Your task to perform on an android device: change the clock display to show seconds Image 0: 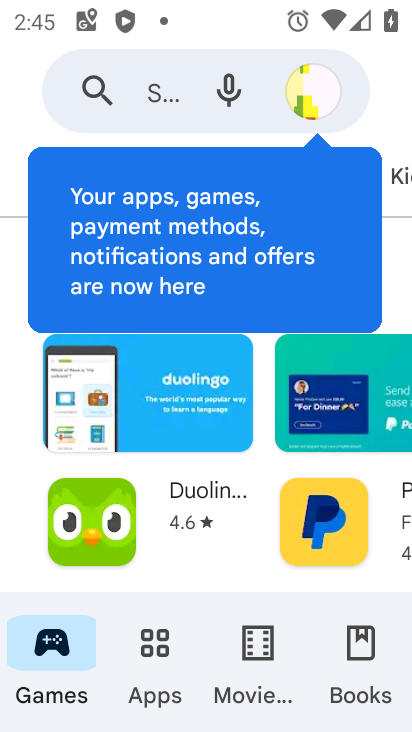
Step 0: press home button
Your task to perform on an android device: change the clock display to show seconds Image 1: 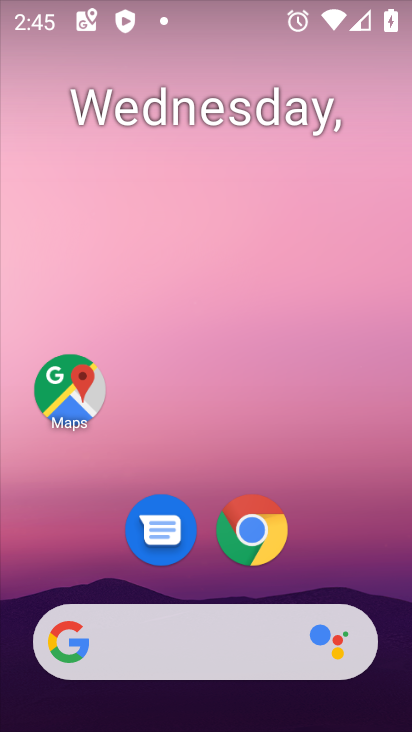
Step 1: drag from (191, 590) to (214, 330)
Your task to perform on an android device: change the clock display to show seconds Image 2: 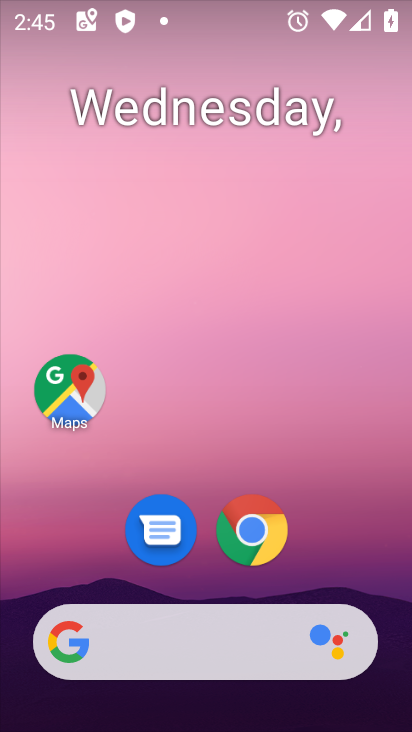
Step 2: drag from (224, 639) to (196, 195)
Your task to perform on an android device: change the clock display to show seconds Image 3: 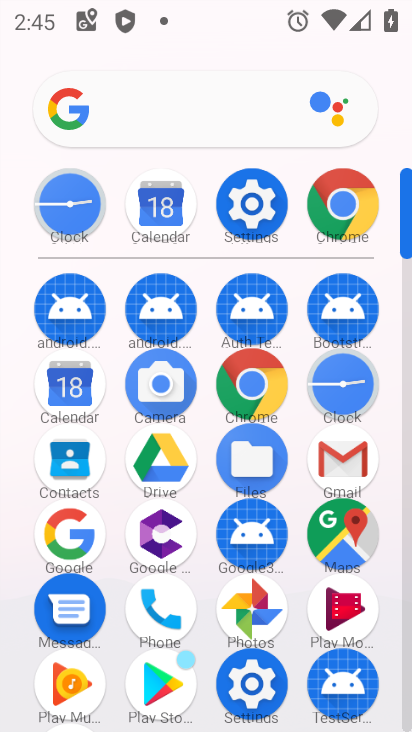
Step 3: click (353, 381)
Your task to perform on an android device: change the clock display to show seconds Image 4: 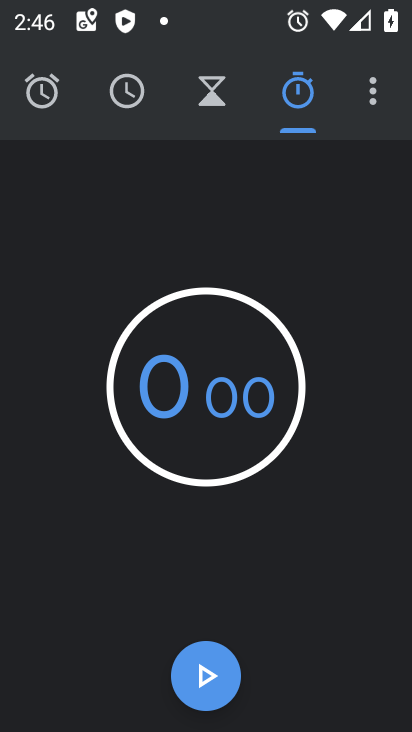
Step 4: click (371, 108)
Your task to perform on an android device: change the clock display to show seconds Image 5: 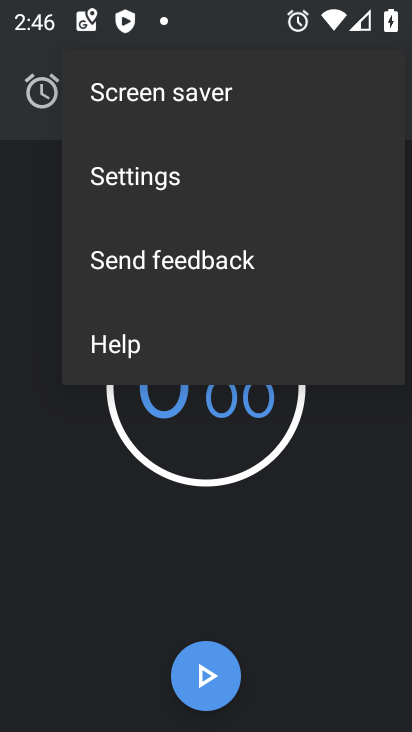
Step 5: click (200, 182)
Your task to perform on an android device: change the clock display to show seconds Image 6: 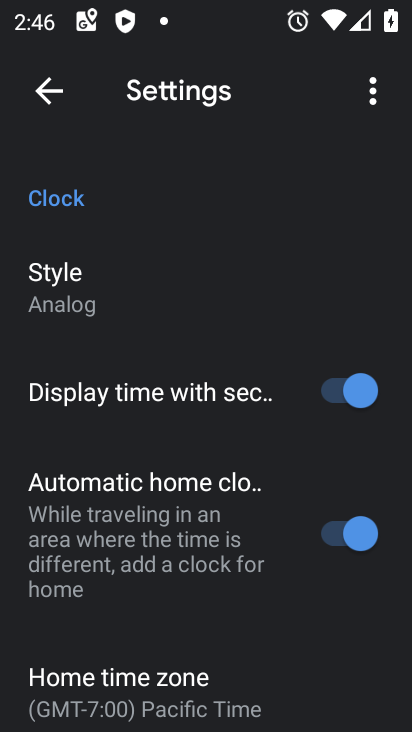
Step 6: task complete